Your task to perform on an android device: toggle data saver in the chrome app Image 0: 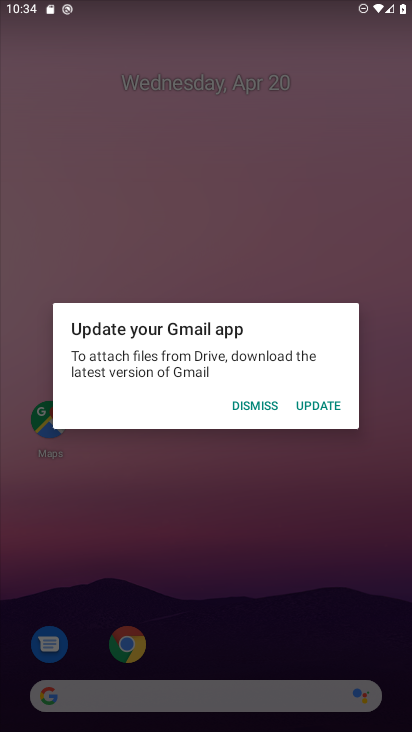
Step 0: press back button
Your task to perform on an android device: toggle data saver in the chrome app Image 1: 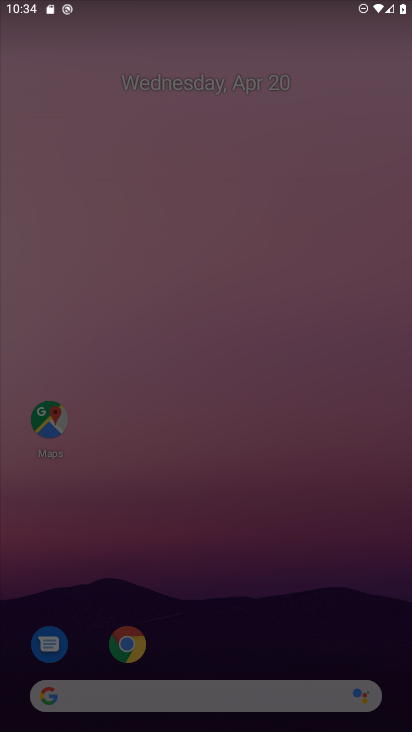
Step 1: drag from (305, 594) to (204, 60)
Your task to perform on an android device: toggle data saver in the chrome app Image 2: 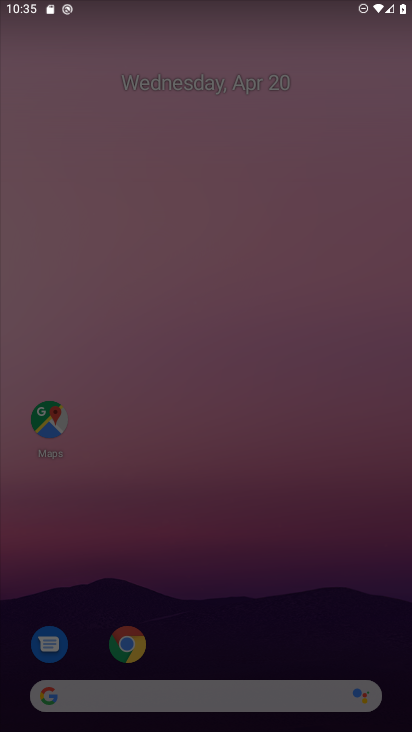
Step 2: click (309, 511)
Your task to perform on an android device: toggle data saver in the chrome app Image 3: 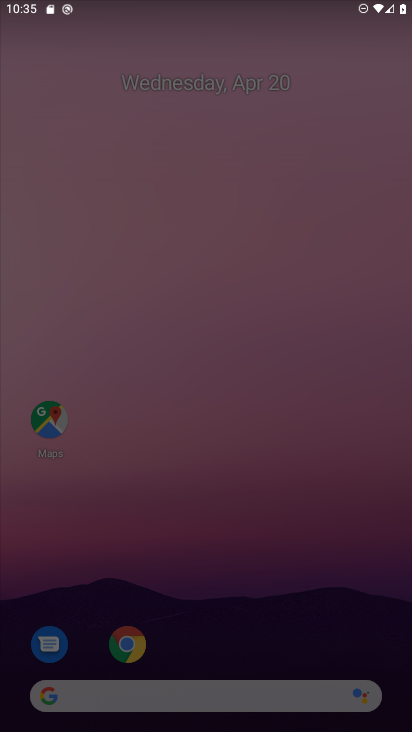
Step 3: click (302, 361)
Your task to perform on an android device: toggle data saver in the chrome app Image 4: 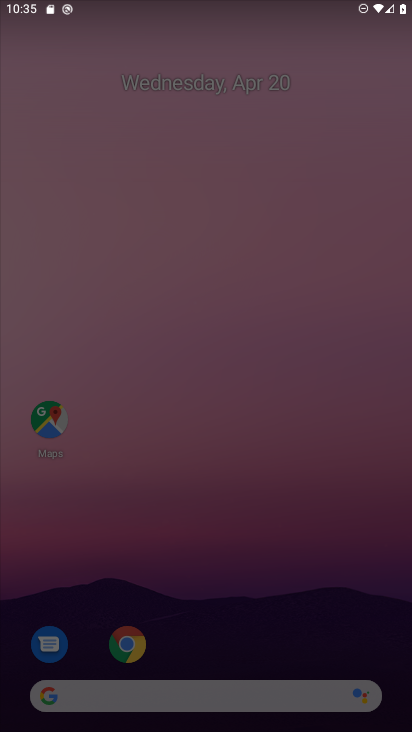
Step 4: press back button
Your task to perform on an android device: toggle data saver in the chrome app Image 5: 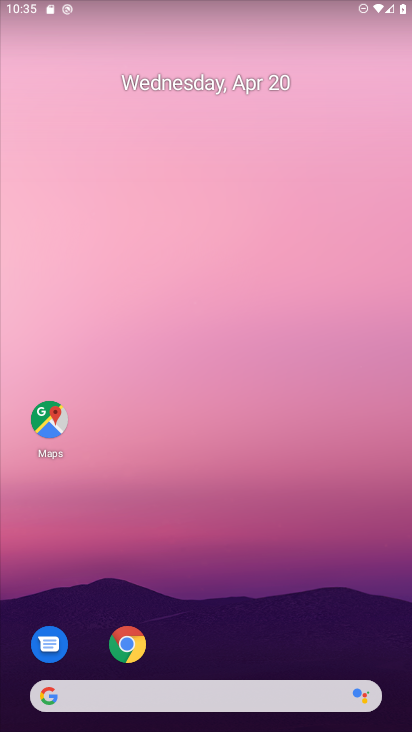
Step 5: click (178, 563)
Your task to perform on an android device: toggle data saver in the chrome app Image 6: 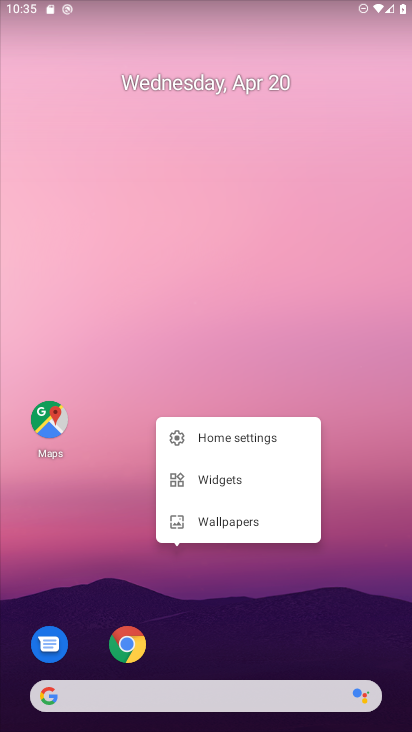
Step 6: click (236, 565)
Your task to perform on an android device: toggle data saver in the chrome app Image 7: 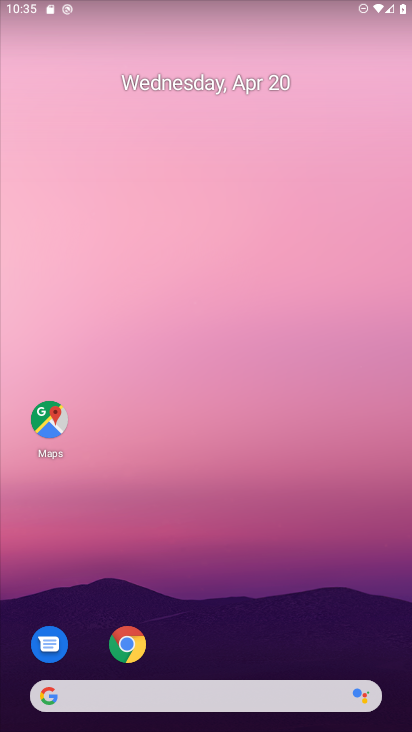
Step 7: drag from (256, 637) to (288, 3)
Your task to perform on an android device: toggle data saver in the chrome app Image 8: 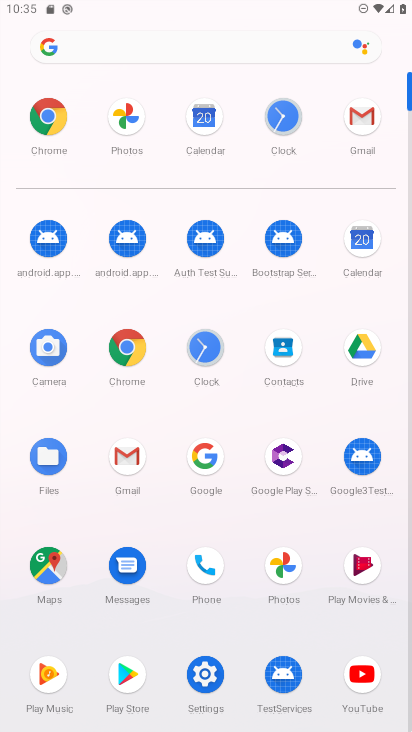
Step 8: click (117, 349)
Your task to perform on an android device: toggle data saver in the chrome app Image 9: 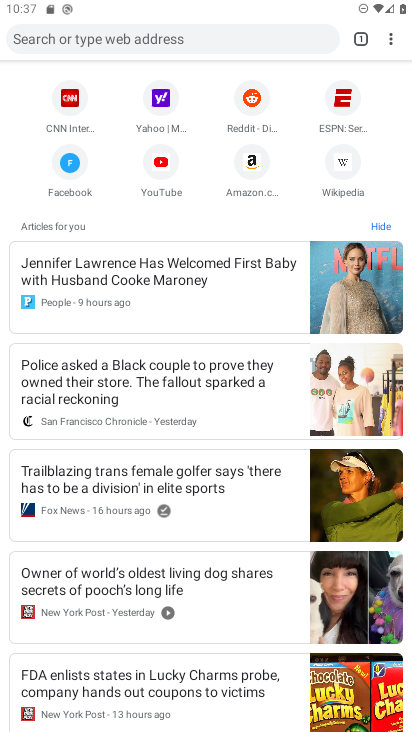
Step 9: click (390, 33)
Your task to perform on an android device: toggle data saver in the chrome app Image 10: 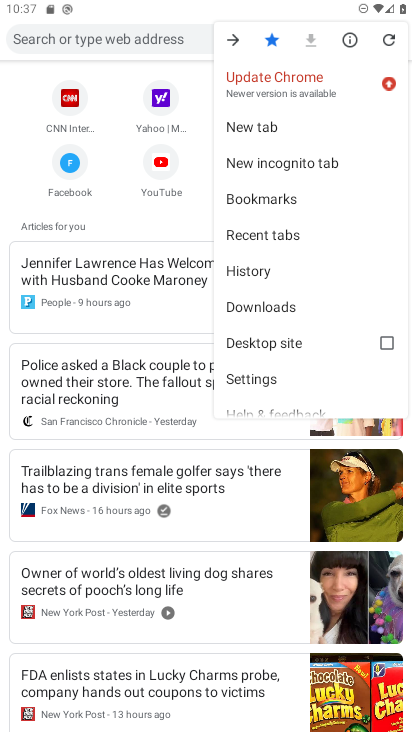
Step 10: click (278, 372)
Your task to perform on an android device: toggle data saver in the chrome app Image 11: 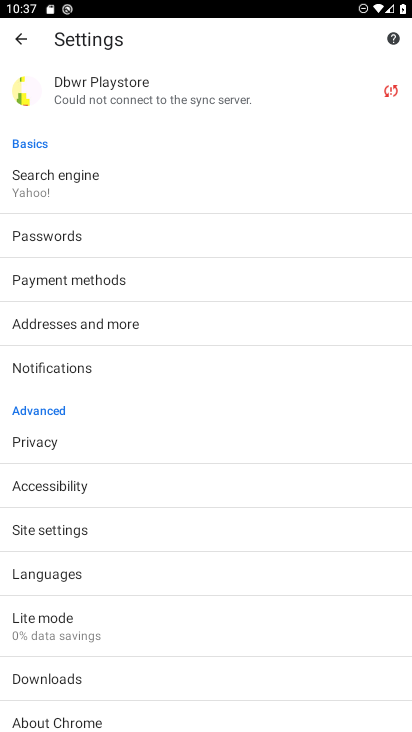
Step 11: click (102, 634)
Your task to perform on an android device: toggle data saver in the chrome app Image 12: 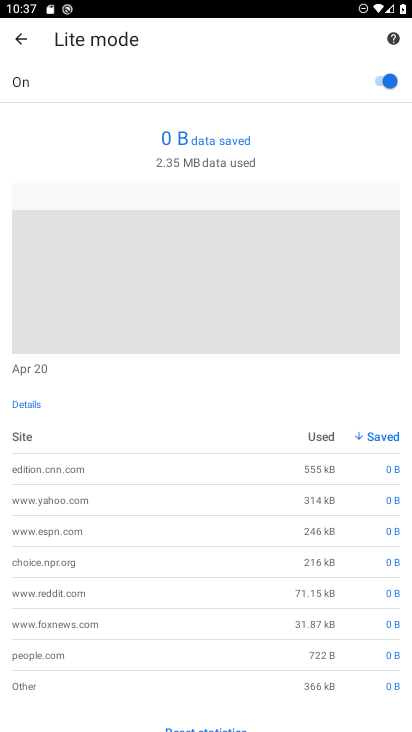
Step 12: click (336, 87)
Your task to perform on an android device: toggle data saver in the chrome app Image 13: 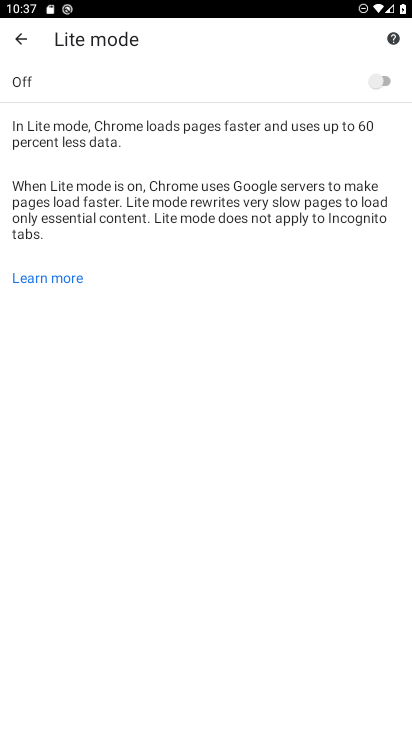
Step 13: task complete